Your task to perform on an android device: toggle notification dots Image 0: 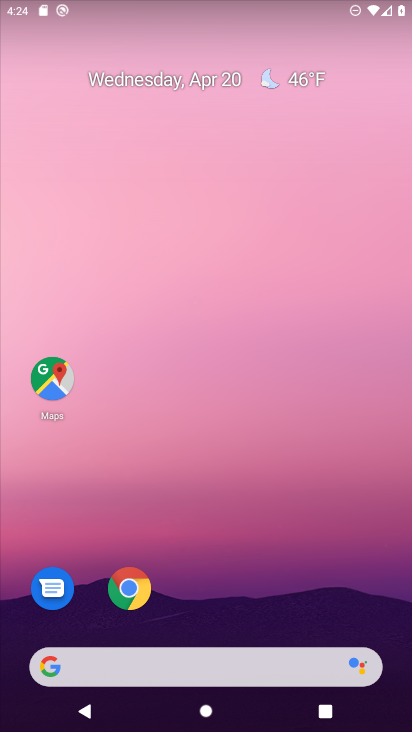
Step 0: drag from (203, 674) to (185, 173)
Your task to perform on an android device: toggle notification dots Image 1: 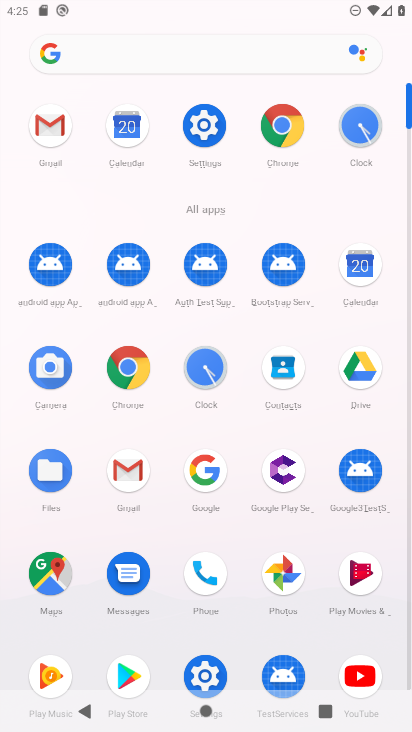
Step 1: click (208, 127)
Your task to perform on an android device: toggle notification dots Image 2: 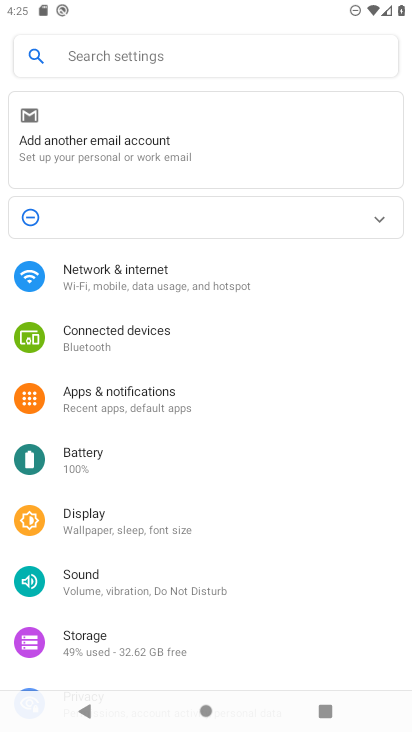
Step 2: click (120, 405)
Your task to perform on an android device: toggle notification dots Image 3: 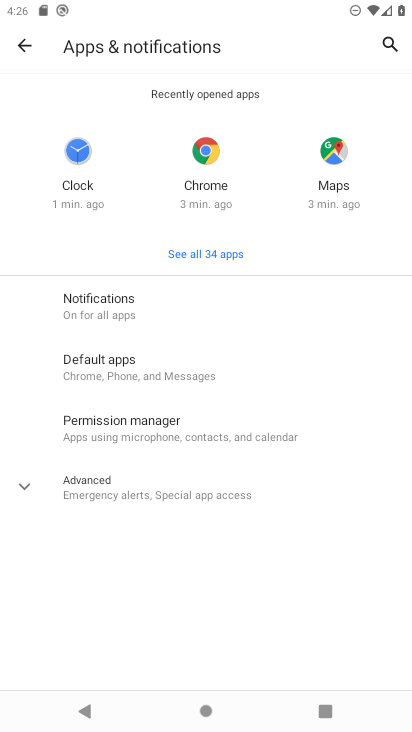
Step 3: click (102, 307)
Your task to perform on an android device: toggle notification dots Image 4: 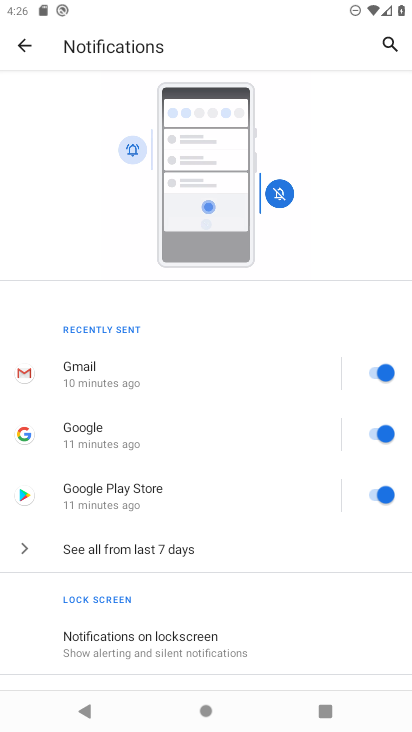
Step 4: drag from (151, 624) to (120, 259)
Your task to perform on an android device: toggle notification dots Image 5: 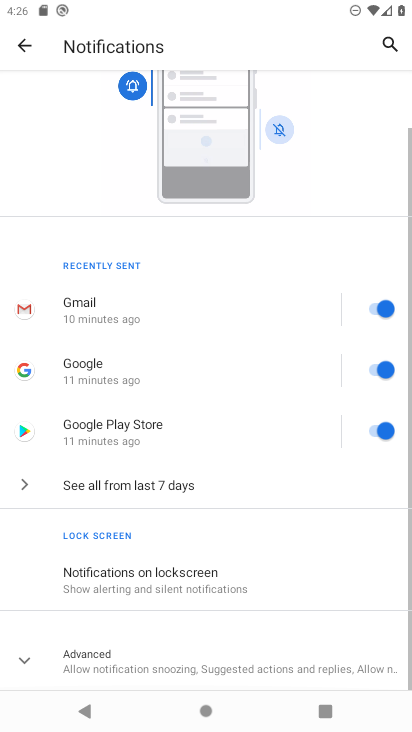
Step 5: click (127, 660)
Your task to perform on an android device: toggle notification dots Image 6: 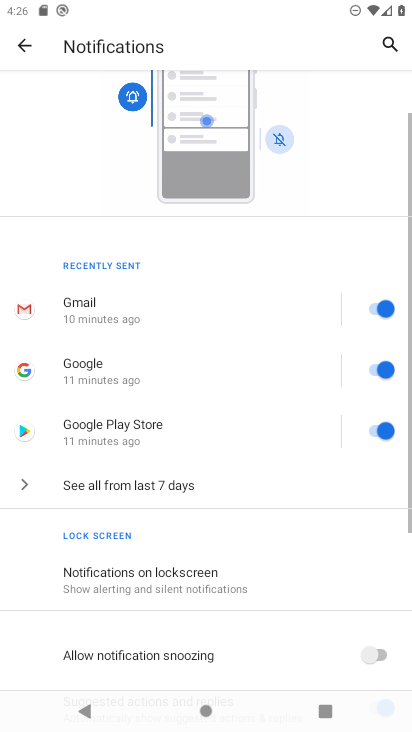
Step 6: drag from (187, 596) to (171, 357)
Your task to perform on an android device: toggle notification dots Image 7: 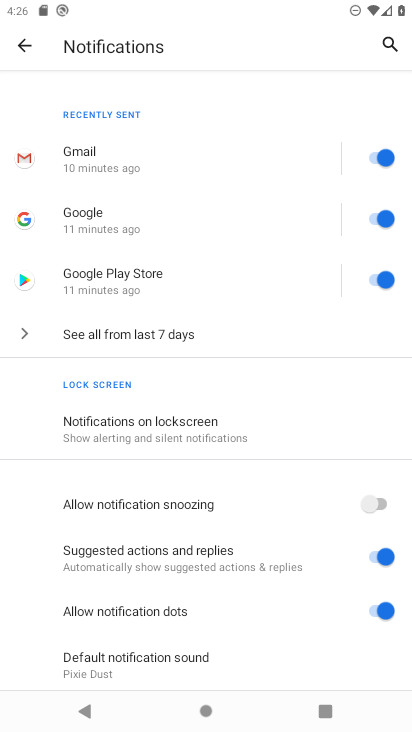
Step 7: click (379, 603)
Your task to perform on an android device: toggle notification dots Image 8: 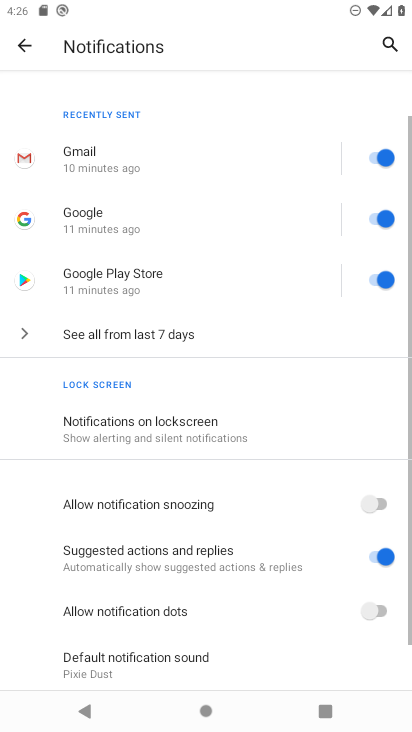
Step 8: task complete